Your task to perform on an android device: Go to wifi settings Image 0: 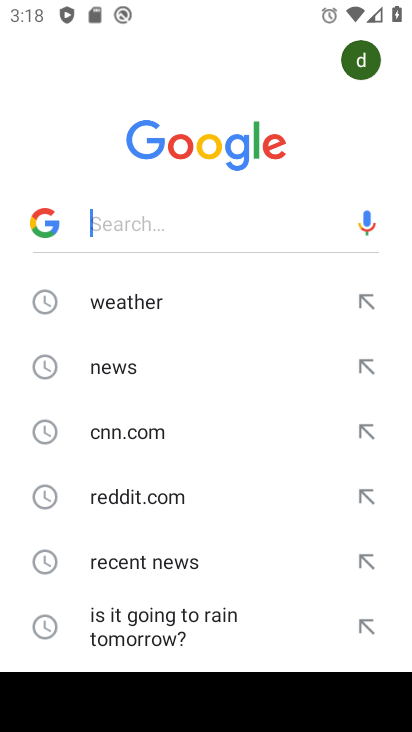
Step 0: press back button
Your task to perform on an android device: Go to wifi settings Image 1: 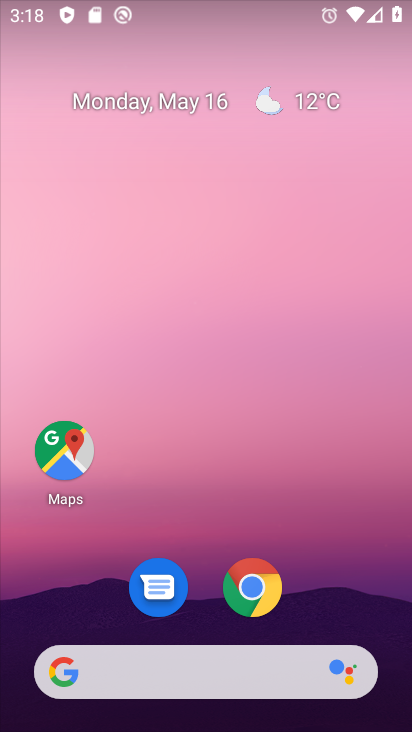
Step 1: click (313, 591)
Your task to perform on an android device: Go to wifi settings Image 2: 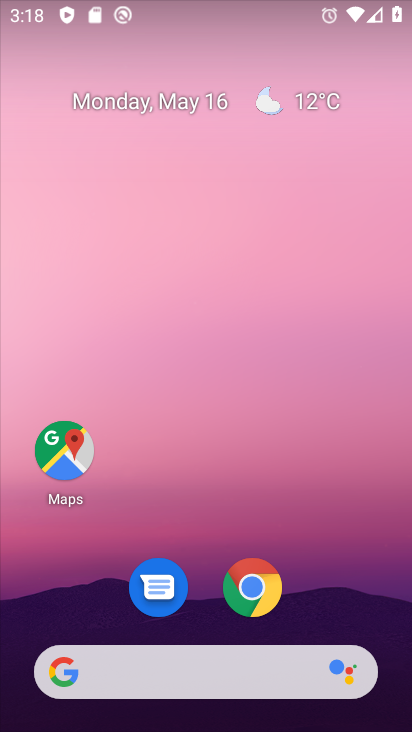
Step 2: click (381, 212)
Your task to perform on an android device: Go to wifi settings Image 3: 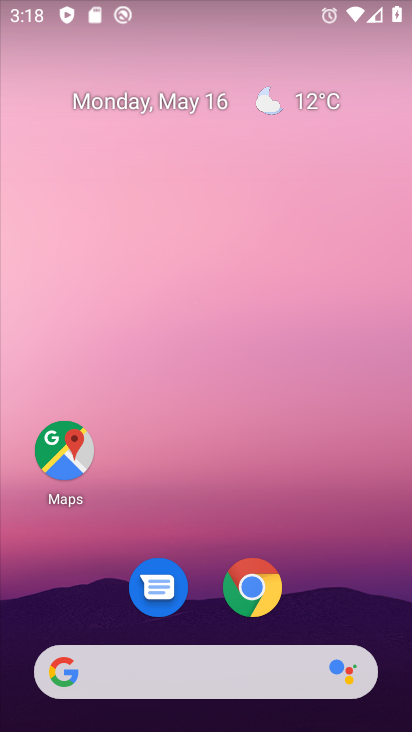
Step 3: drag from (382, 624) to (365, 167)
Your task to perform on an android device: Go to wifi settings Image 4: 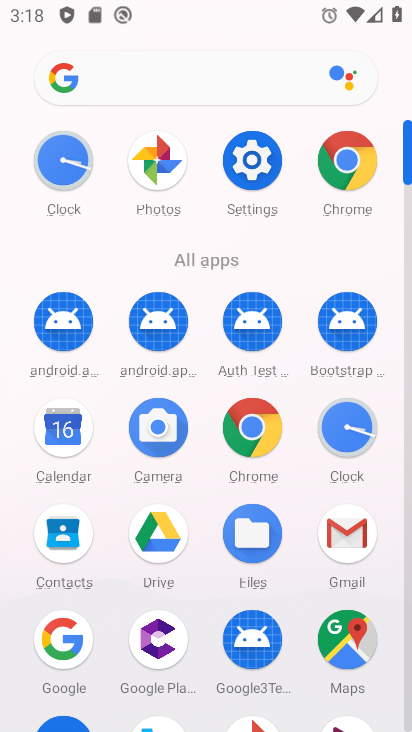
Step 4: click (250, 161)
Your task to perform on an android device: Go to wifi settings Image 5: 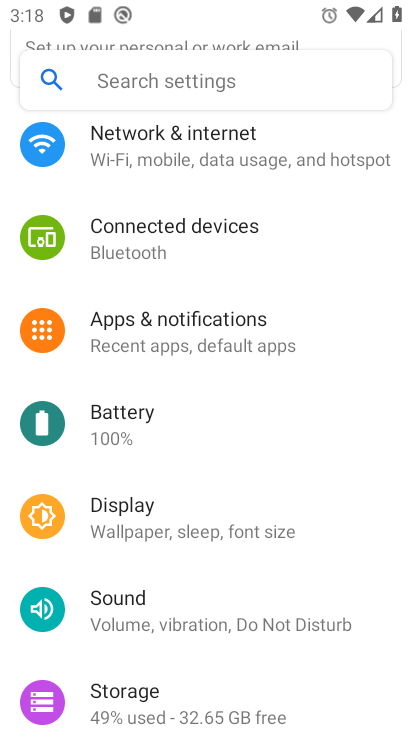
Step 5: click (206, 148)
Your task to perform on an android device: Go to wifi settings Image 6: 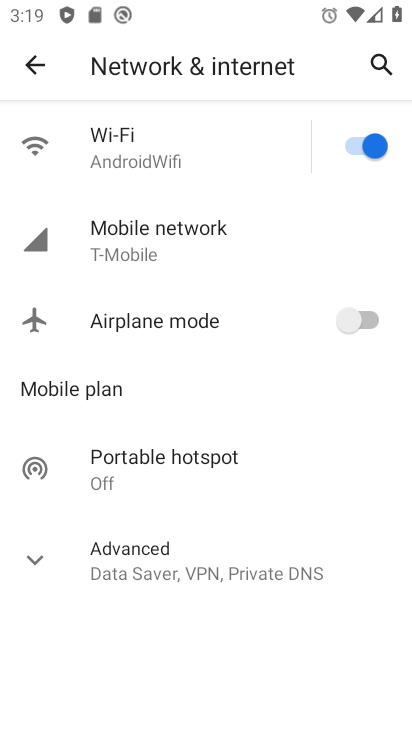
Step 6: click (163, 141)
Your task to perform on an android device: Go to wifi settings Image 7: 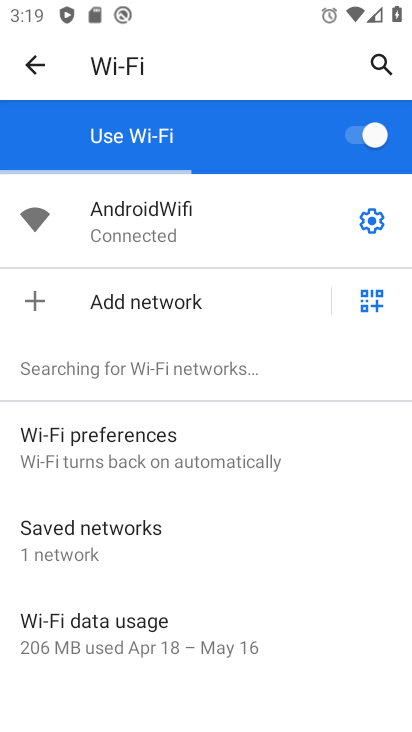
Step 7: click (379, 220)
Your task to perform on an android device: Go to wifi settings Image 8: 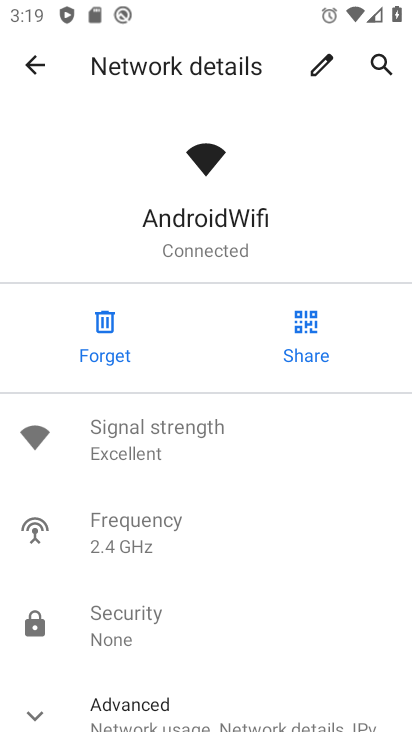
Step 8: task complete